Your task to perform on an android device: set an alarm Image 0: 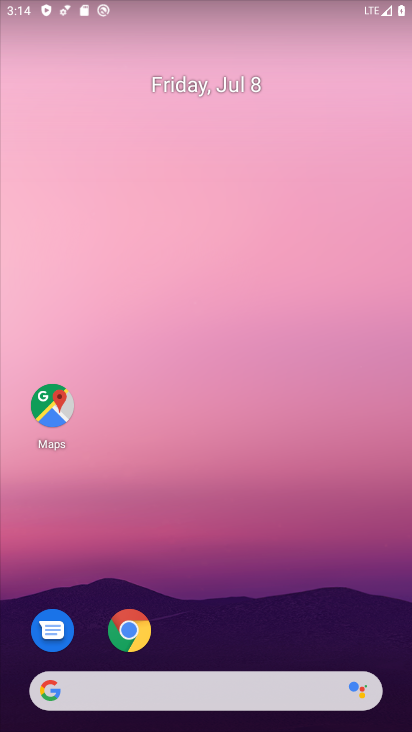
Step 0: drag from (289, 498) to (293, 200)
Your task to perform on an android device: set an alarm Image 1: 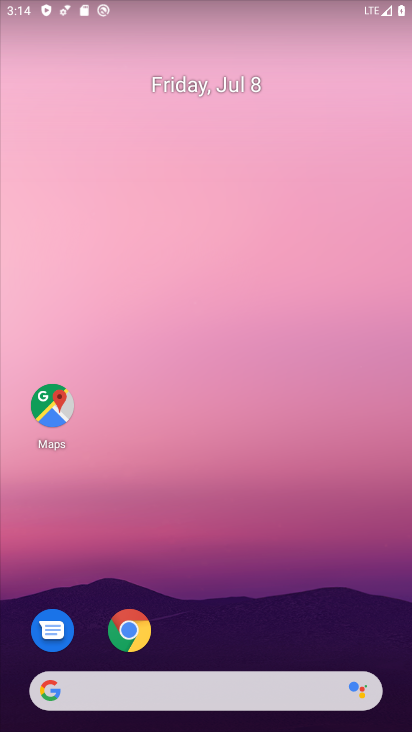
Step 1: drag from (288, 368) to (298, 42)
Your task to perform on an android device: set an alarm Image 2: 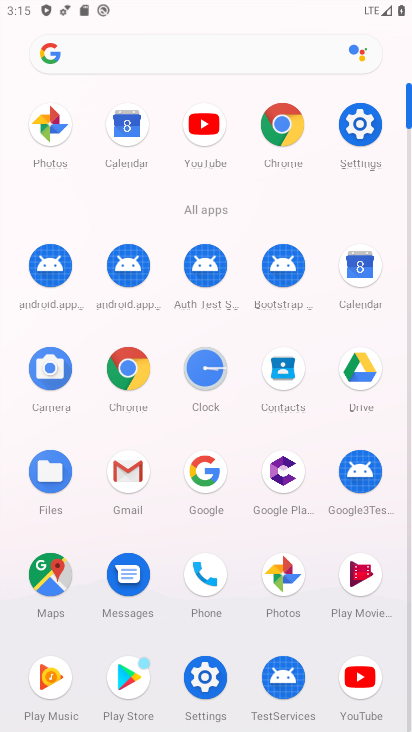
Step 2: click (195, 376)
Your task to perform on an android device: set an alarm Image 3: 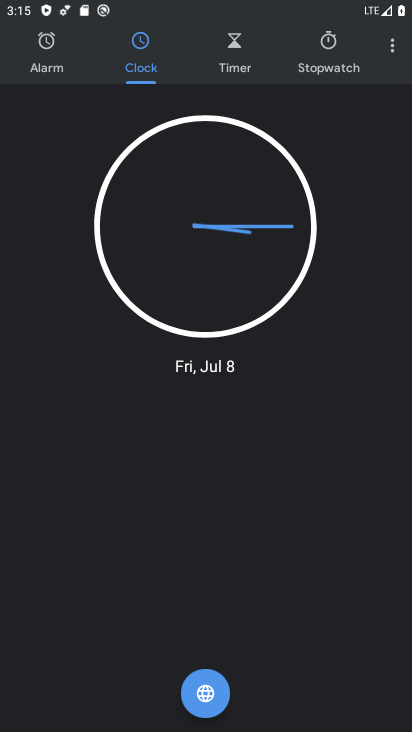
Step 3: click (42, 44)
Your task to perform on an android device: set an alarm Image 4: 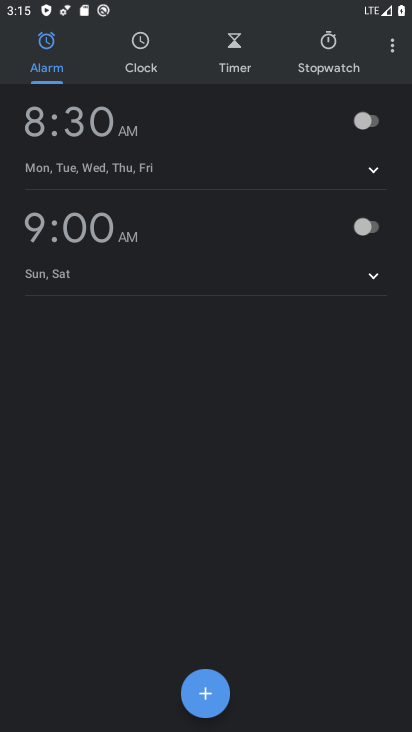
Step 4: click (368, 128)
Your task to perform on an android device: set an alarm Image 5: 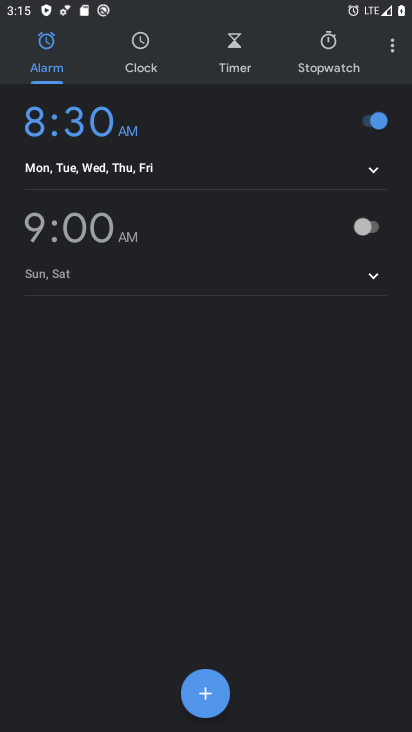
Step 5: task complete